Your task to perform on an android device: empty trash in google photos Image 0: 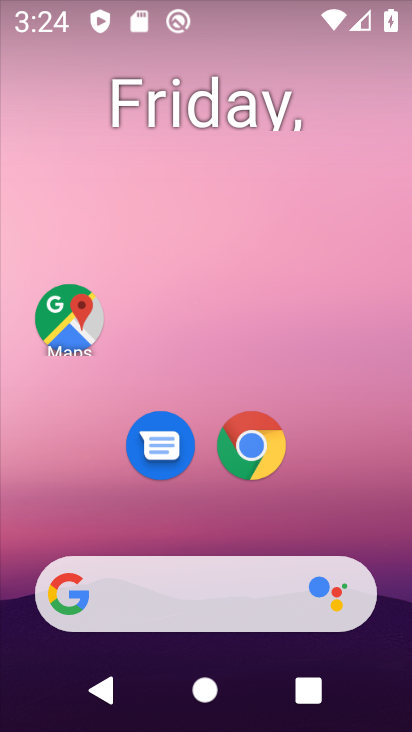
Step 0: drag from (212, 554) to (272, 15)
Your task to perform on an android device: empty trash in google photos Image 1: 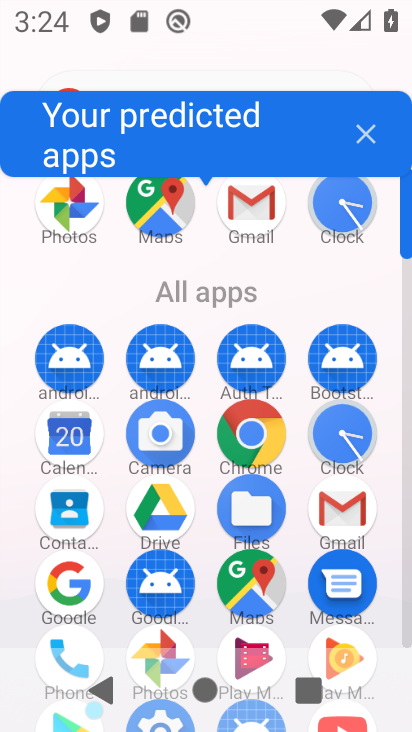
Step 1: drag from (205, 613) to (205, 300)
Your task to perform on an android device: empty trash in google photos Image 2: 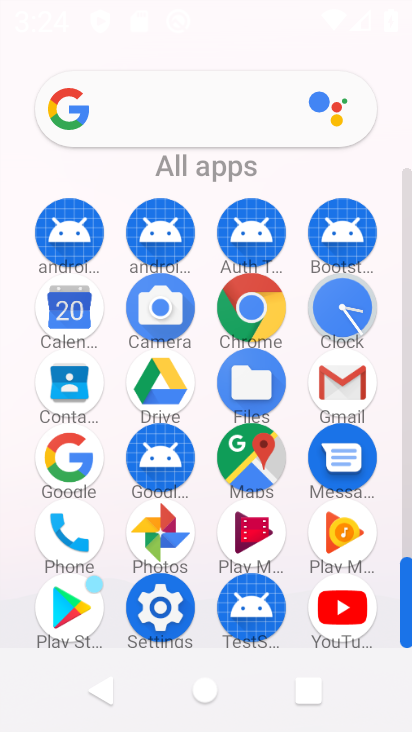
Step 2: click (160, 540)
Your task to perform on an android device: empty trash in google photos Image 3: 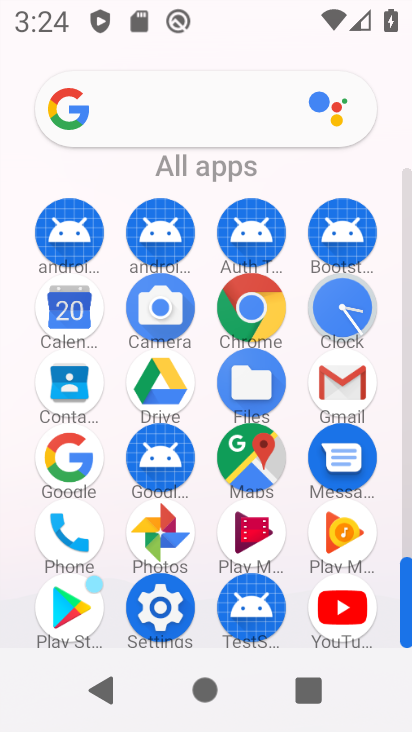
Step 3: click (168, 533)
Your task to perform on an android device: empty trash in google photos Image 4: 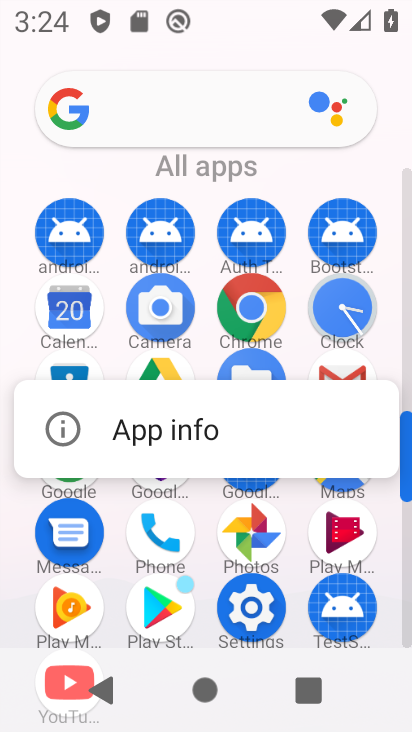
Step 4: click (167, 540)
Your task to perform on an android device: empty trash in google photos Image 5: 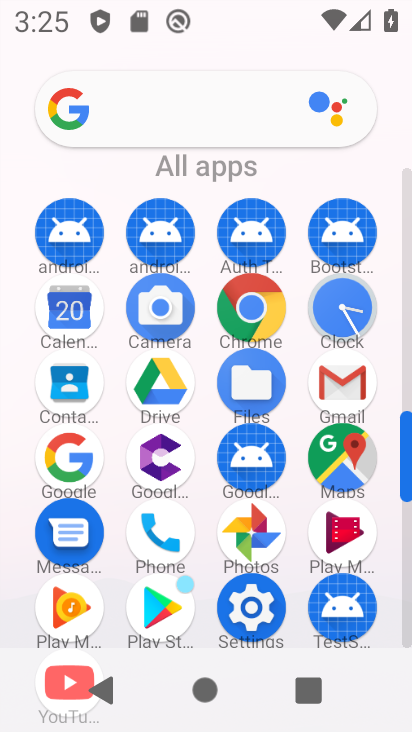
Step 5: click (263, 536)
Your task to perform on an android device: empty trash in google photos Image 6: 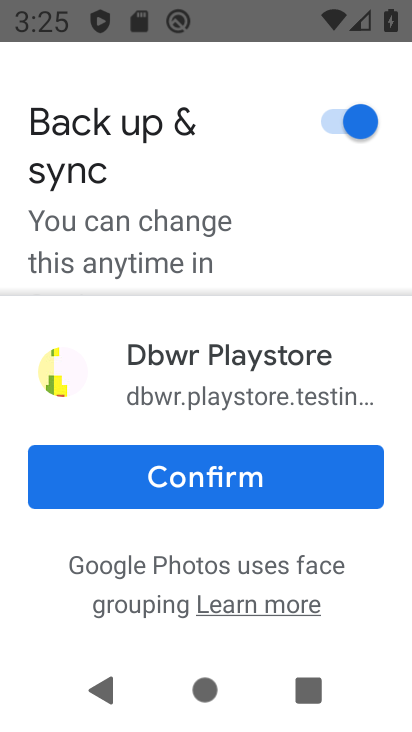
Step 6: click (181, 477)
Your task to perform on an android device: empty trash in google photos Image 7: 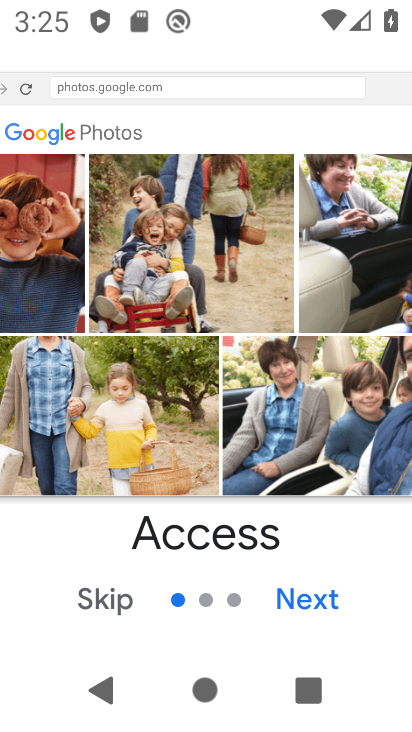
Step 7: click (115, 599)
Your task to perform on an android device: empty trash in google photos Image 8: 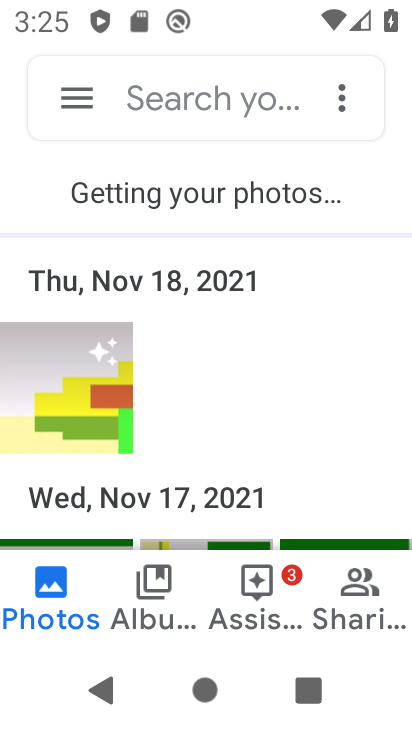
Step 8: click (58, 104)
Your task to perform on an android device: empty trash in google photos Image 9: 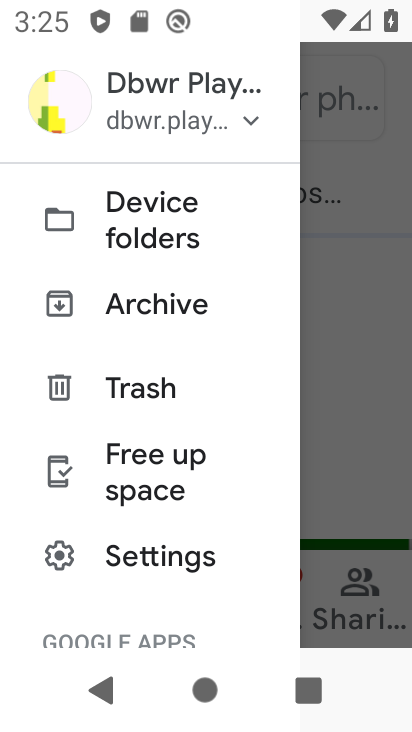
Step 9: click (138, 388)
Your task to perform on an android device: empty trash in google photos Image 10: 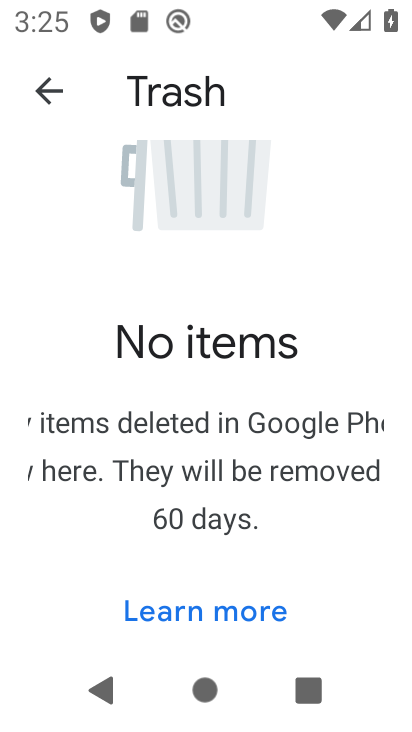
Step 10: task complete